Your task to perform on an android device: change keyboard looks Image 0: 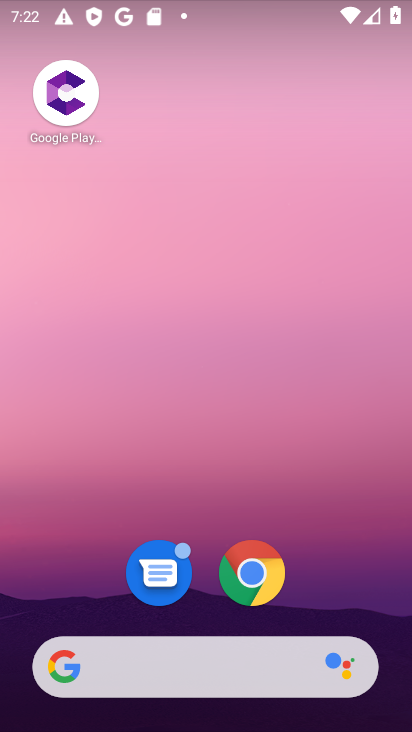
Step 0: drag from (306, 461) to (258, 16)
Your task to perform on an android device: change keyboard looks Image 1: 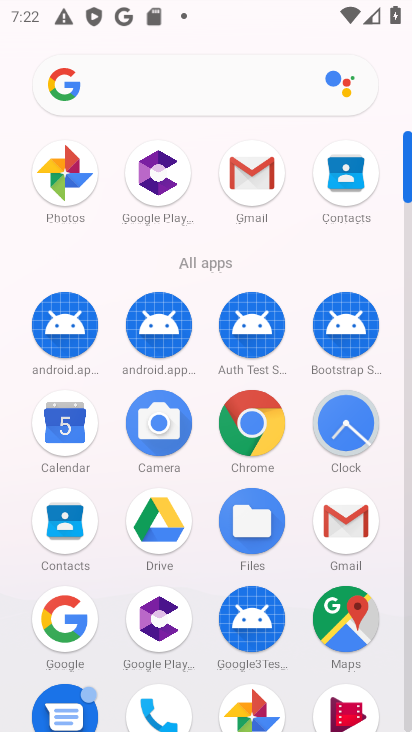
Step 1: drag from (198, 573) to (187, 118)
Your task to perform on an android device: change keyboard looks Image 2: 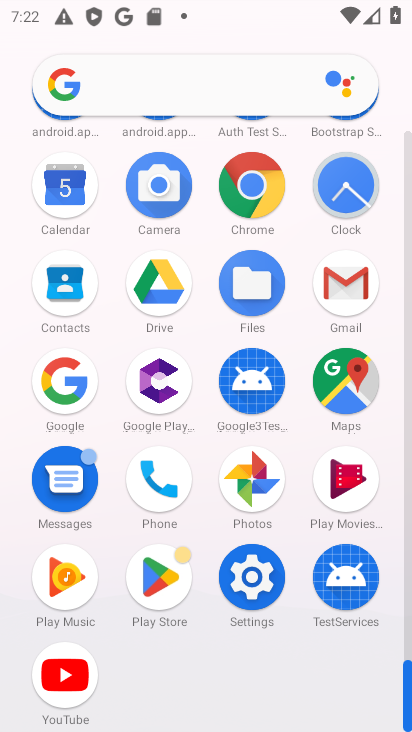
Step 2: click (245, 576)
Your task to perform on an android device: change keyboard looks Image 3: 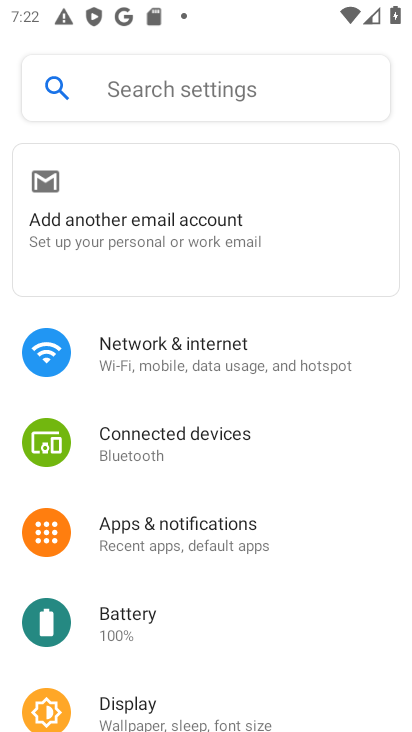
Step 3: drag from (212, 587) to (236, 7)
Your task to perform on an android device: change keyboard looks Image 4: 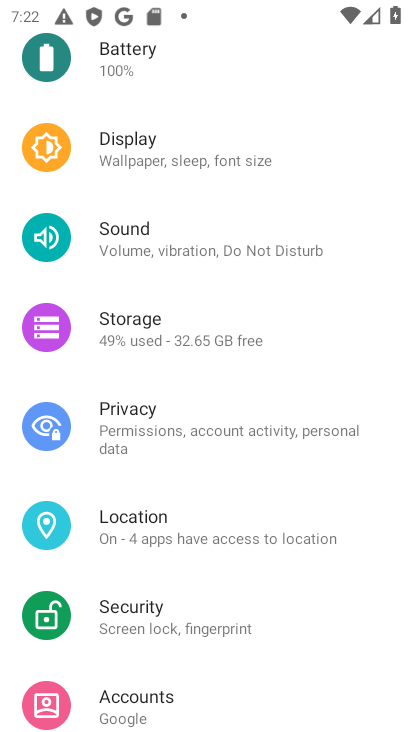
Step 4: drag from (234, 576) to (261, 48)
Your task to perform on an android device: change keyboard looks Image 5: 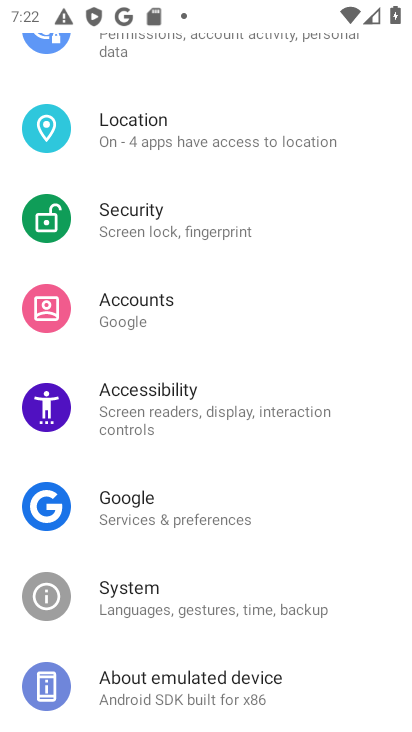
Step 5: click (197, 597)
Your task to perform on an android device: change keyboard looks Image 6: 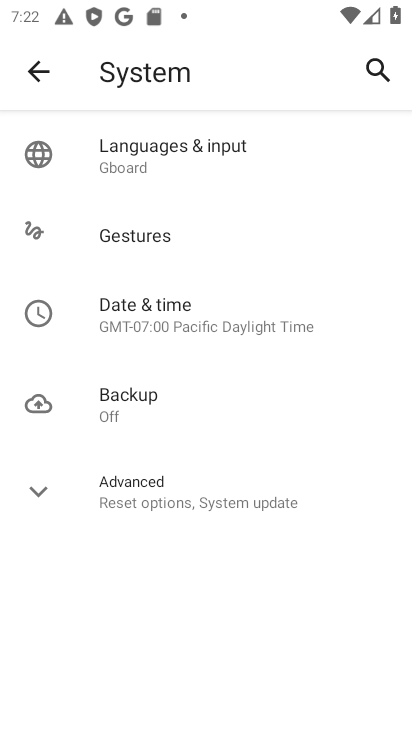
Step 6: click (192, 150)
Your task to perform on an android device: change keyboard looks Image 7: 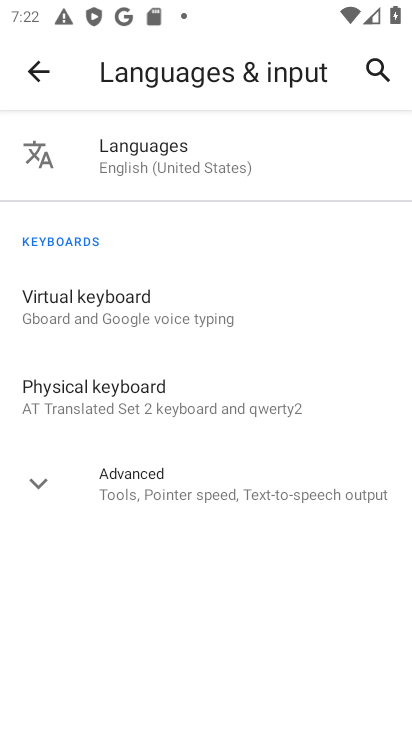
Step 7: click (130, 303)
Your task to perform on an android device: change keyboard looks Image 8: 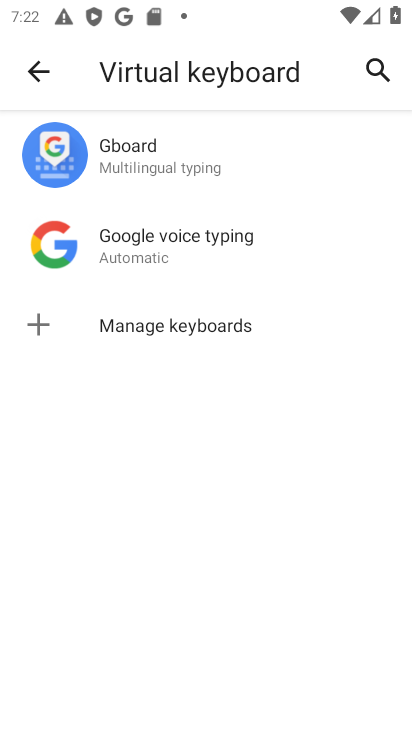
Step 8: click (143, 158)
Your task to perform on an android device: change keyboard looks Image 9: 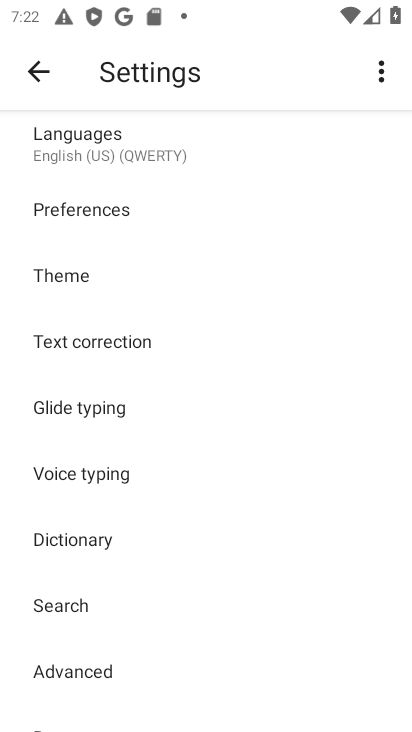
Step 9: click (103, 270)
Your task to perform on an android device: change keyboard looks Image 10: 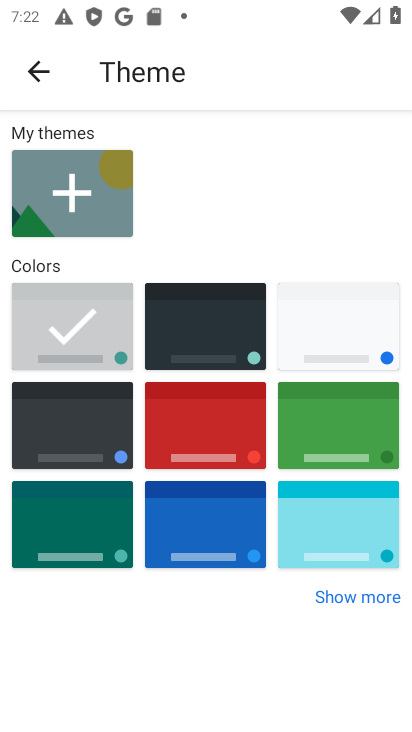
Step 10: click (201, 331)
Your task to perform on an android device: change keyboard looks Image 11: 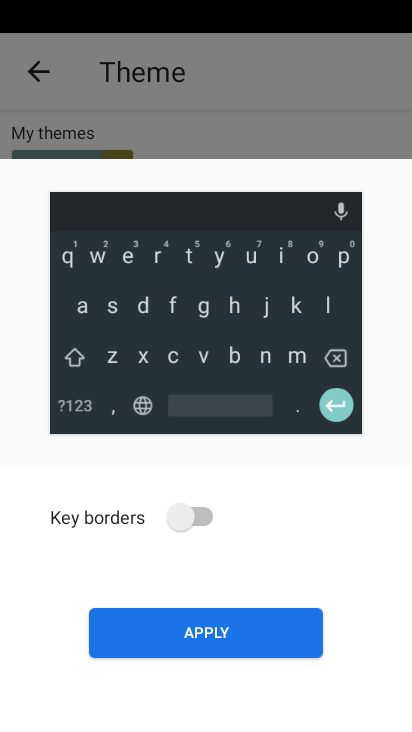
Step 11: click (199, 502)
Your task to perform on an android device: change keyboard looks Image 12: 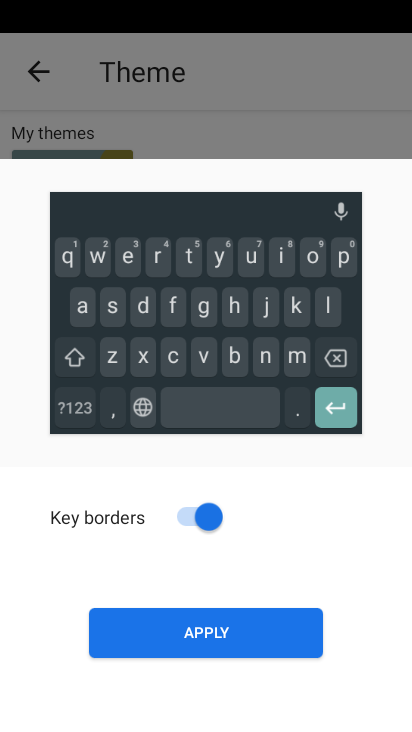
Step 12: click (233, 639)
Your task to perform on an android device: change keyboard looks Image 13: 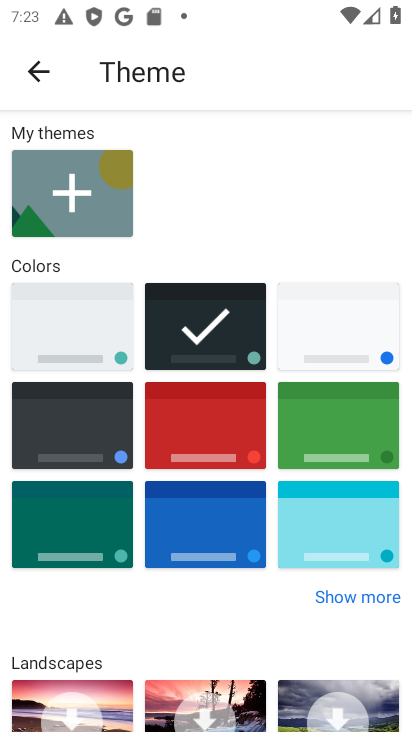
Step 13: task complete